Your task to perform on an android device: open a bookmark in the chrome app Image 0: 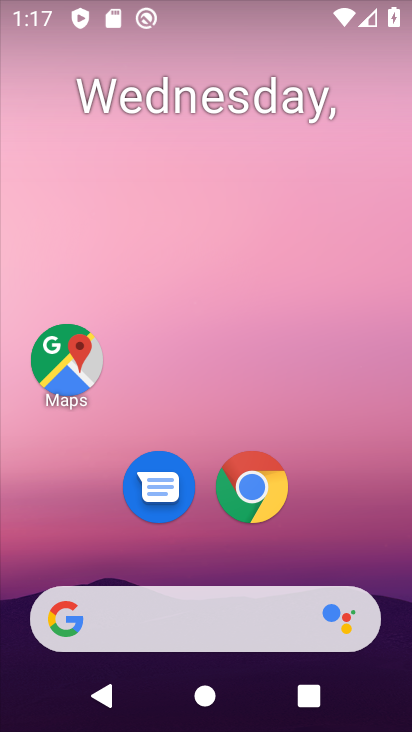
Step 0: click (266, 490)
Your task to perform on an android device: open a bookmark in the chrome app Image 1: 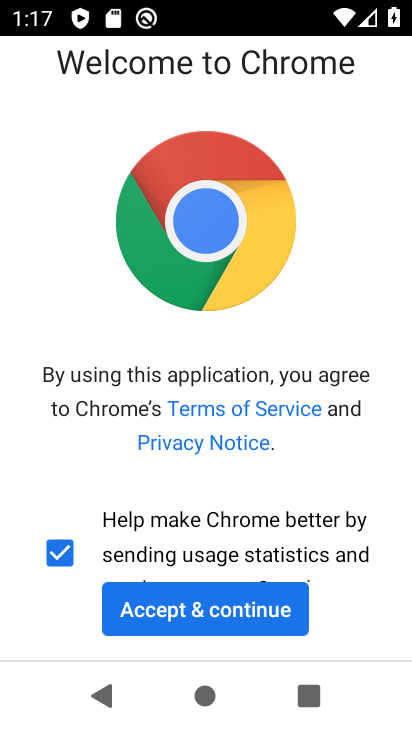
Step 1: click (208, 591)
Your task to perform on an android device: open a bookmark in the chrome app Image 2: 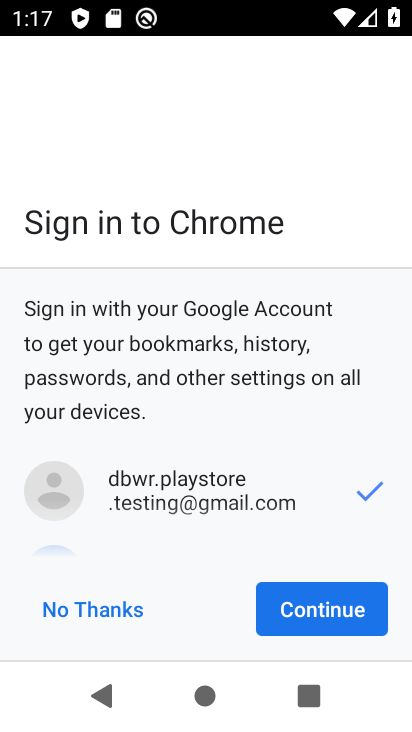
Step 2: click (298, 609)
Your task to perform on an android device: open a bookmark in the chrome app Image 3: 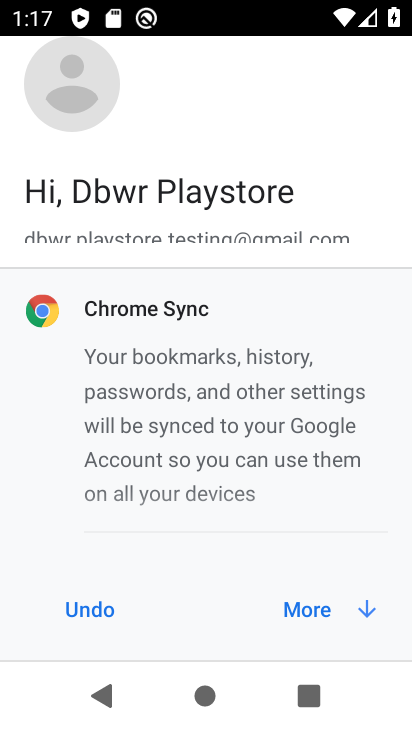
Step 3: click (374, 613)
Your task to perform on an android device: open a bookmark in the chrome app Image 4: 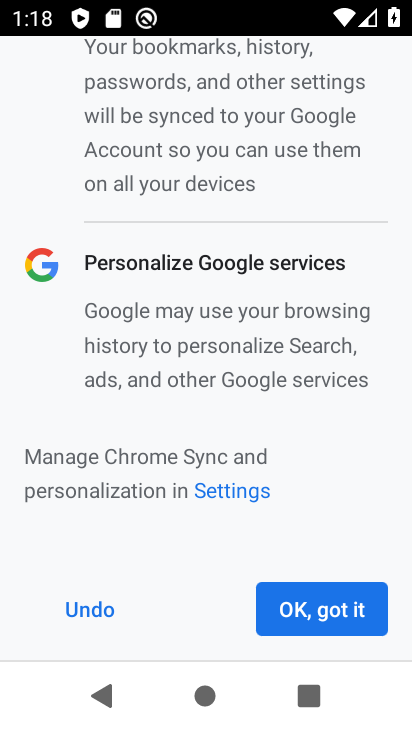
Step 4: click (336, 612)
Your task to perform on an android device: open a bookmark in the chrome app Image 5: 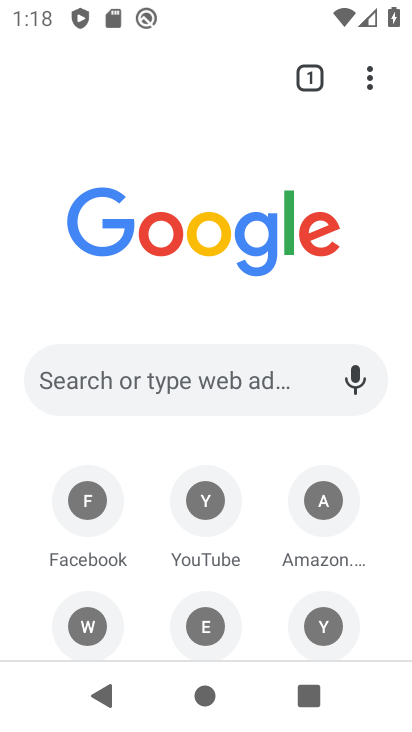
Step 5: click (369, 72)
Your task to perform on an android device: open a bookmark in the chrome app Image 6: 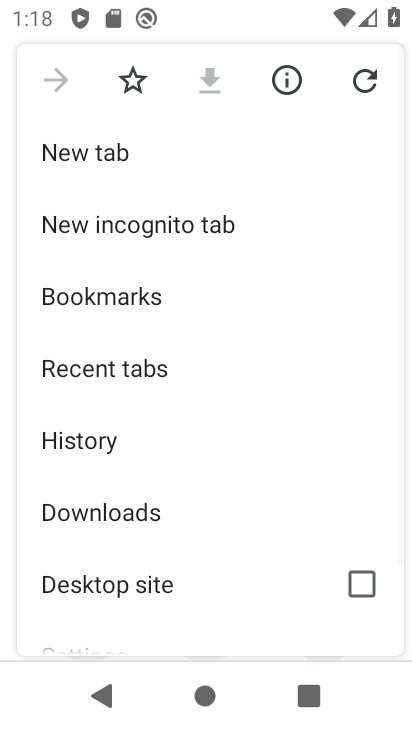
Step 6: click (137, 289)
Your task to perform on an android device: open a bookmark in the chrome app Image 7: 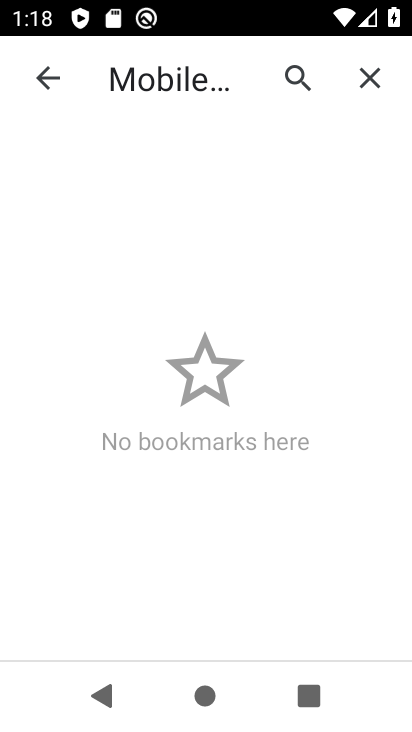
Step 7: task complete